Your task to perform on an android device: Go to network settings Image 0: 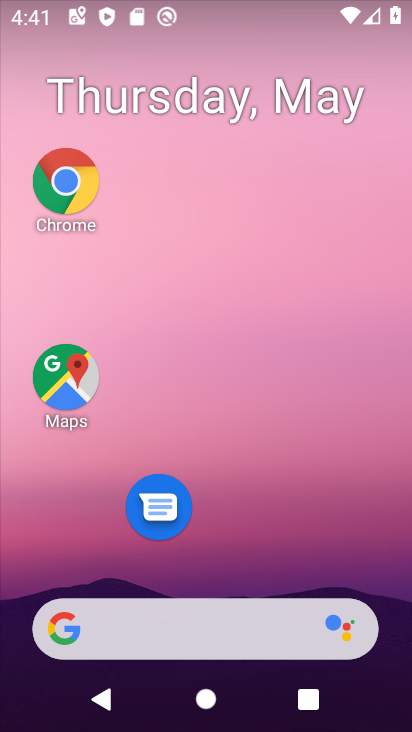
Step 0: drag from (327, 550) to (100, 150)
Your task to perform on an android device: Go to network settings Image 1: 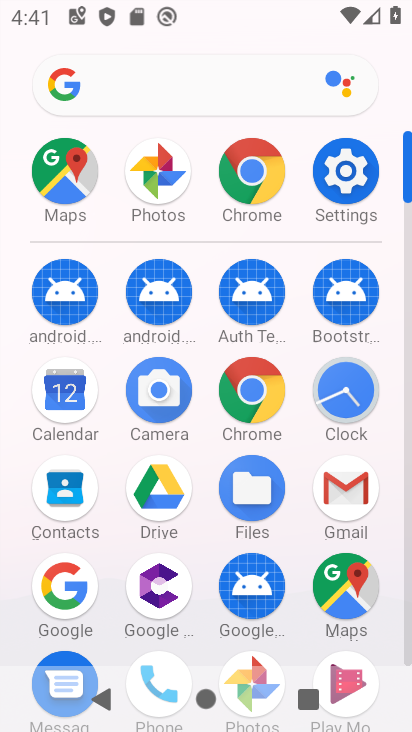
Step 1: click (328, 179)
Your task to perform on an android device: Go to network settings Image 2: 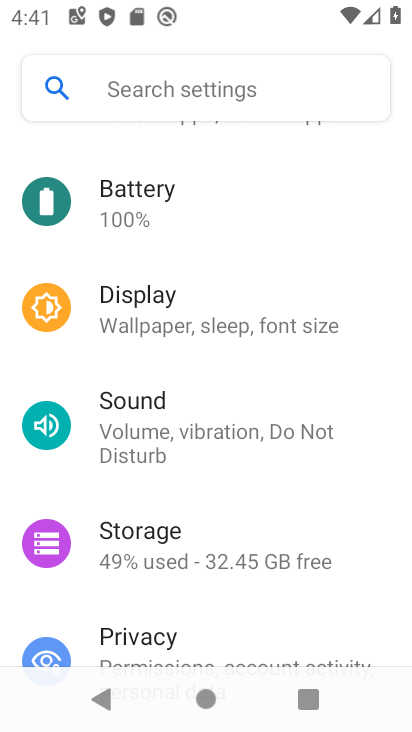
Step 2: drag from (158, 362) to (269, 684)
Your task to perform on an android device: Go to network settings Image 3: 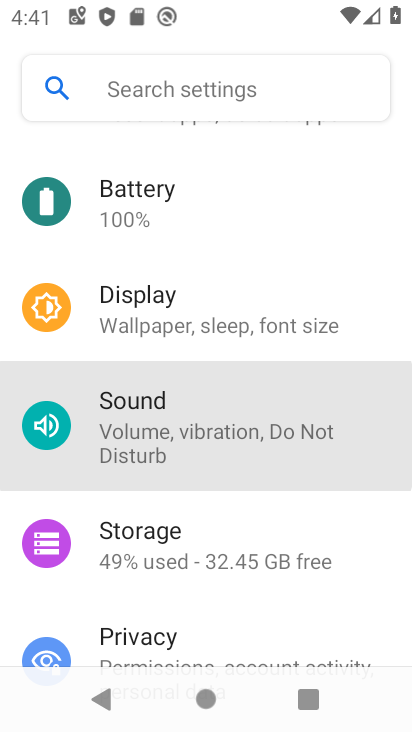
Step 3: drag from (190, 349) to (247, 613)
Your task to perform on an android device: Go to network settings Image 4: 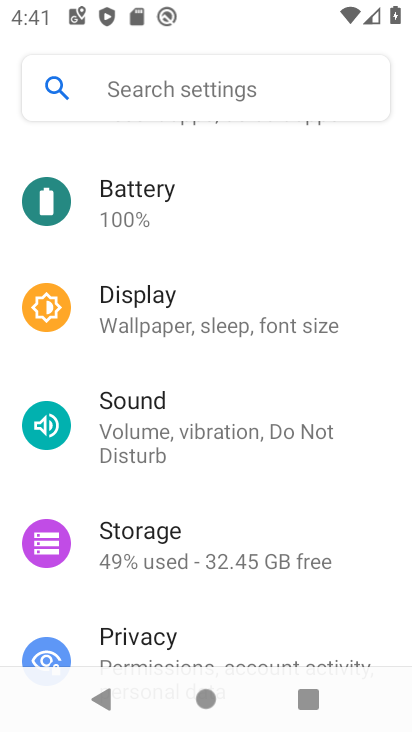
Step 4: drag from (221, 575) to (234, 617)
Your task to perform on an android device: Go to network settings Image 5: 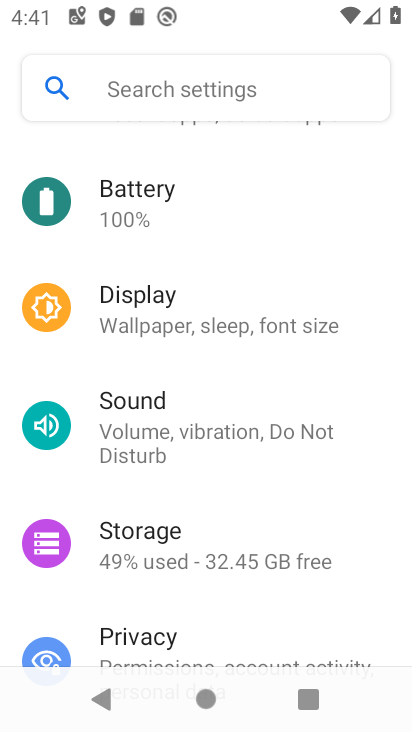
Step 5: drag from (222, 446) to (242, 515)
Your task to perform on an android device: Go to network settings Image 6: 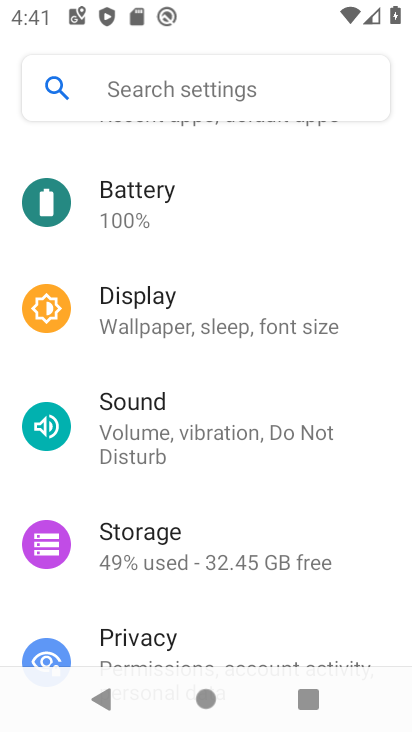
Step 6: drag from (201, 174) to (249, 532)
Your task to perform on an android device: Go to network settings Image 7: 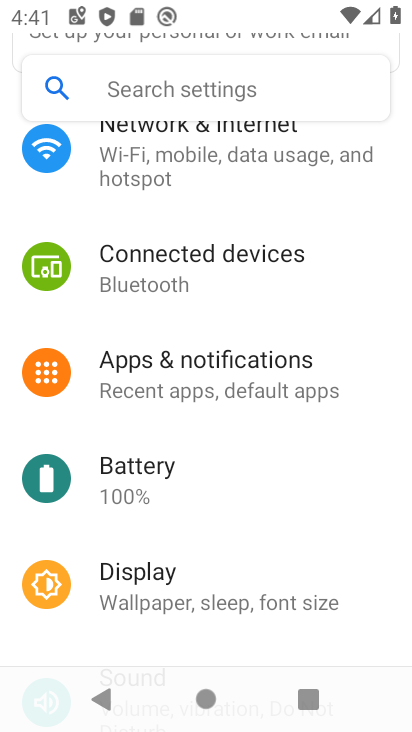
Step 7: drag from (156, 187) to (228, 646)
Your task to perform on an android device: Go to network settings Image 8: 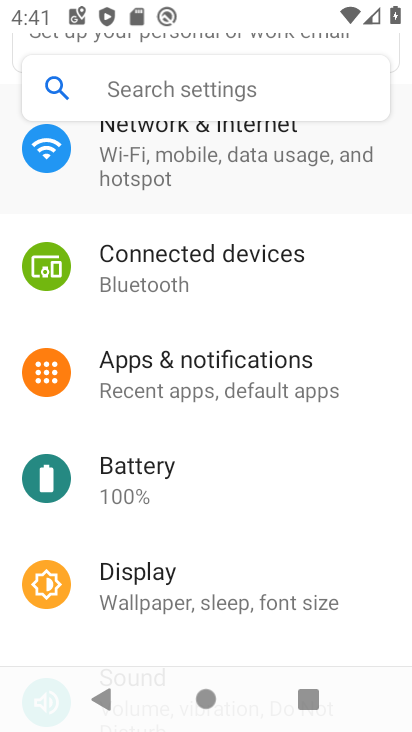
Step 8: click (318, 674)
Your task to perform on an android device: Go to network settings Image 9: 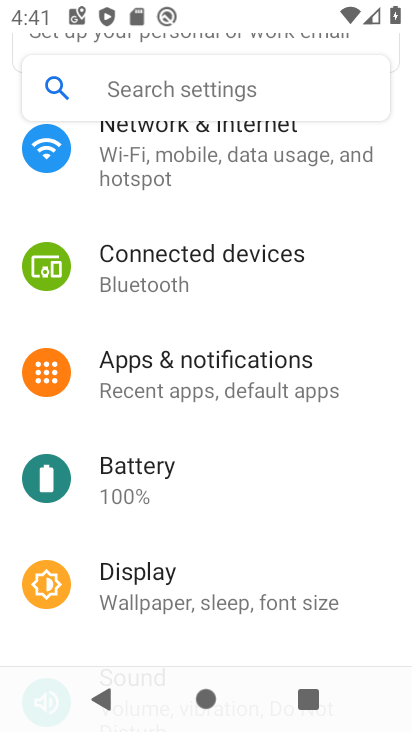
Step 9: drag from (314, 305) to (387, 532)
Your task to perform on an android device: Go to network settings Image 10: 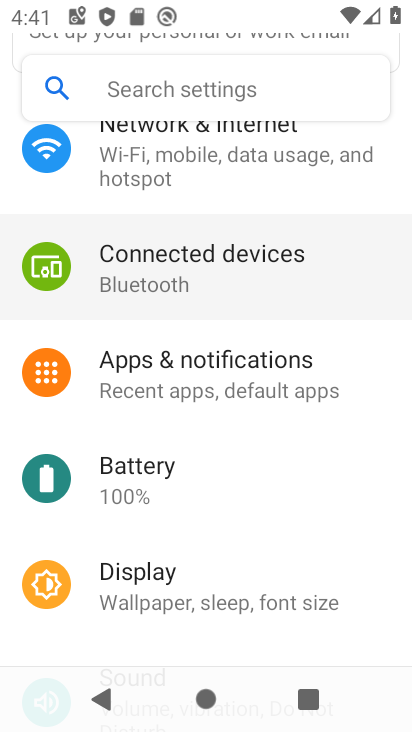
Step 10: click (322, 500)
Your task to perform on an android device: Go to network settings Image 11: 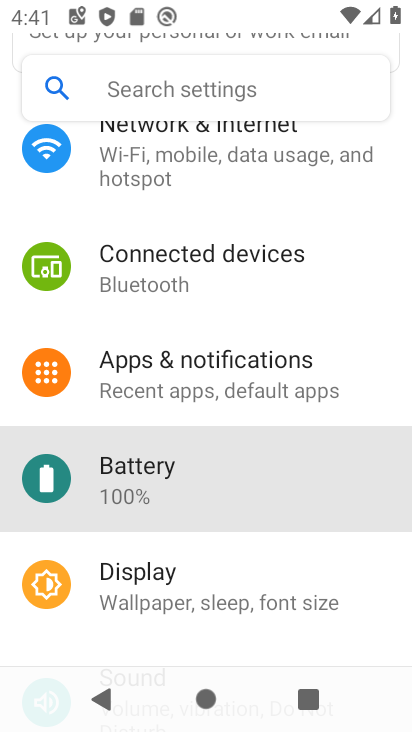
Step 11: click (191, 149)
Your task to perform on an android device: Go to network settings Image 12: 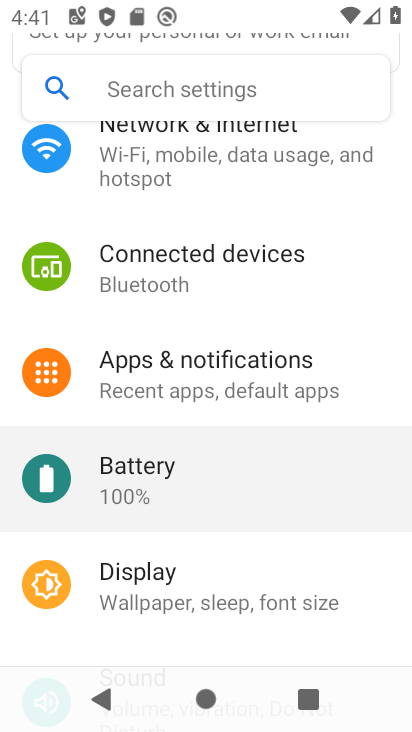
Step 12: click (196, 159)
Your task to perform on an android device: Go to network settings Image 13: 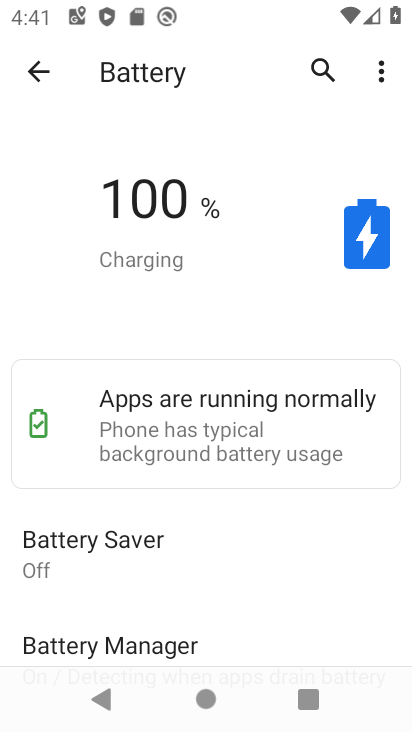
Step 13: click (34, 55)
Your task to perform on an android device: Go to network settings Image 14: 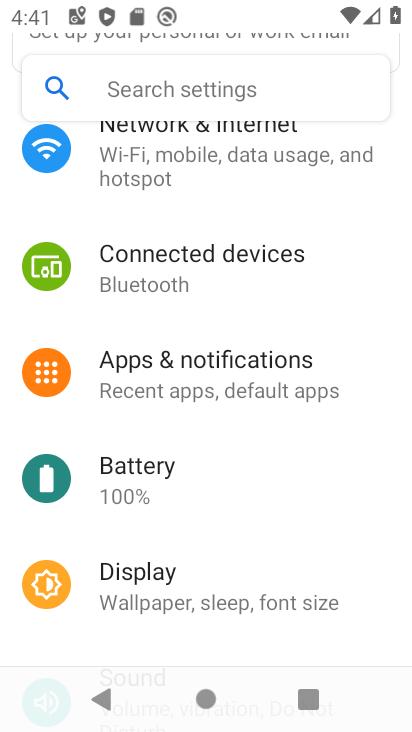
Step 14: click (164, 142)
Your task to perform on an android device: Go to network settings Image 15: 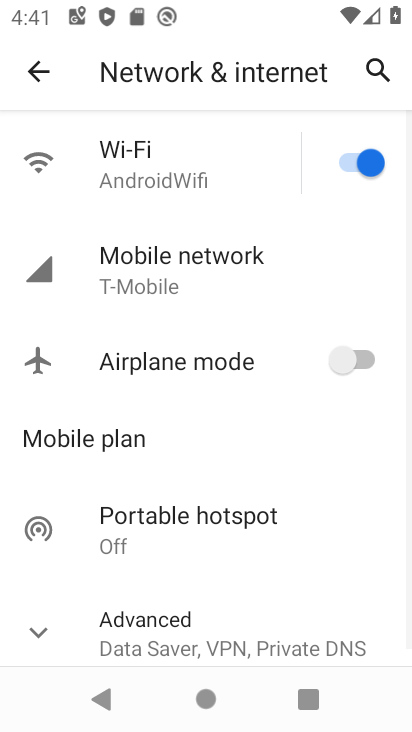
Step 15: task complete